Your task to perform on an android device: toggle notification dots Image 0: 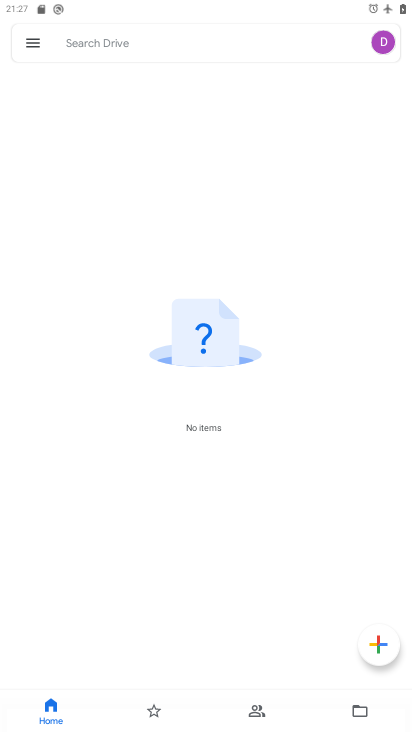
Step 0: press home button
Your task to perform on an android device: toggle notification dots Image 1: 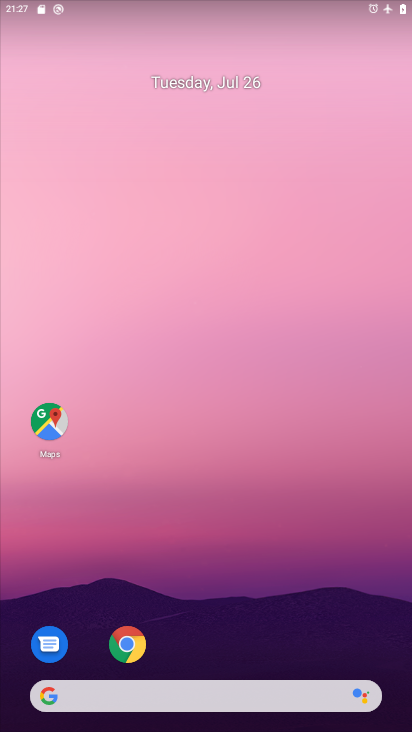
Step 1: drag from (225, 613) to (230, 91)
Your task to perform on an android device: toggle notification dots Image 2: 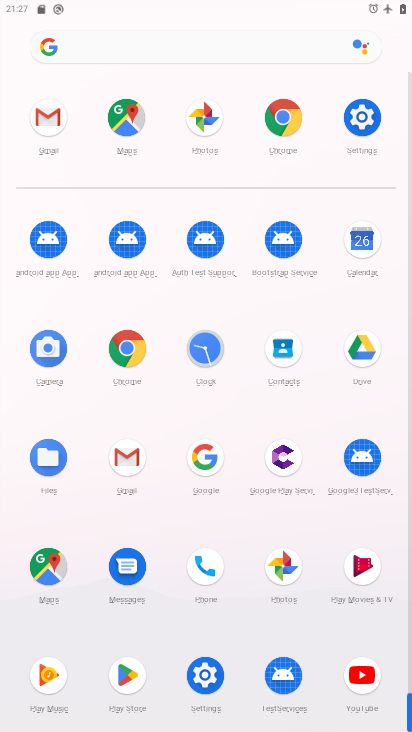
Step 2: click (365, 114)
Your task to perform on an android device: toggle notification dots Image 3: 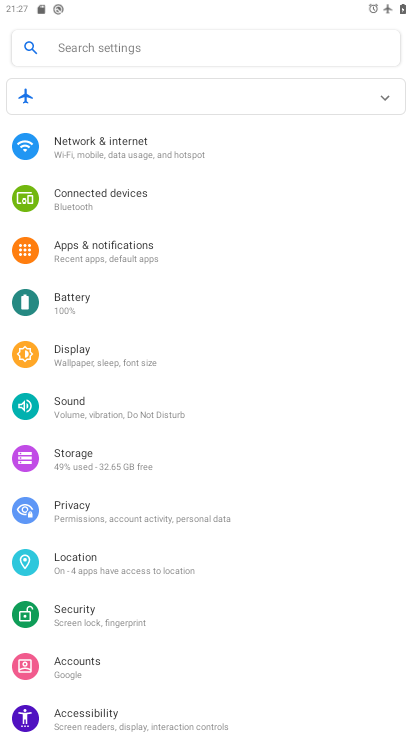
Step 3: click (242, 44)
Your task to perform on an android device: toggle notification dots Image 4: 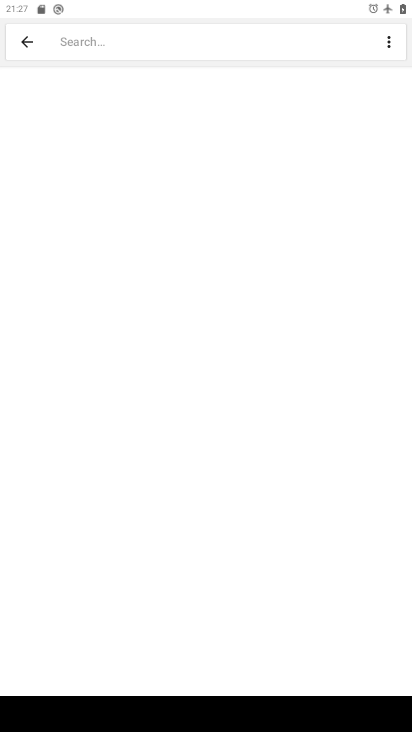
Step 4: type "notification dots "
Your task to perform on an android device: toggle notification dots Image 5: 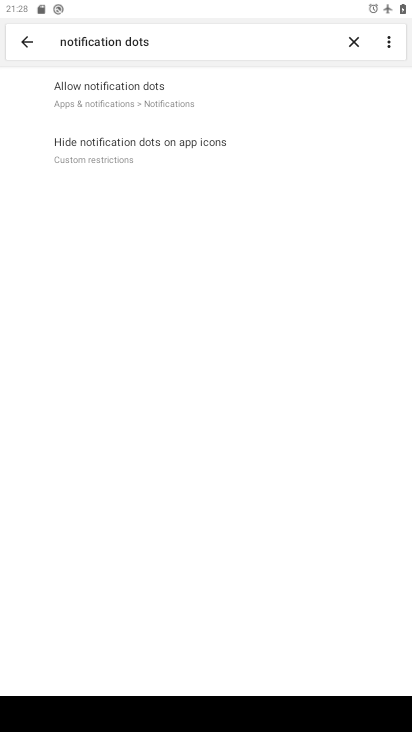
Step 5: click (214, 93)
Your task to perform on an android device: toggle notification dots Image 6: 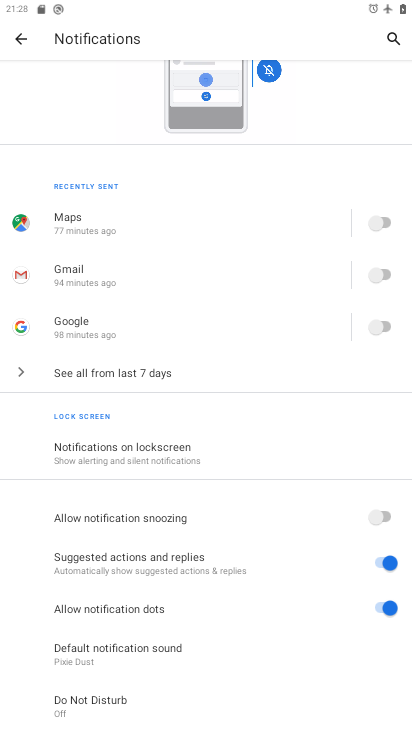
Step 6: task complete